Your task to perform on an android device: turn smart compose on in the gmail app Image 0: 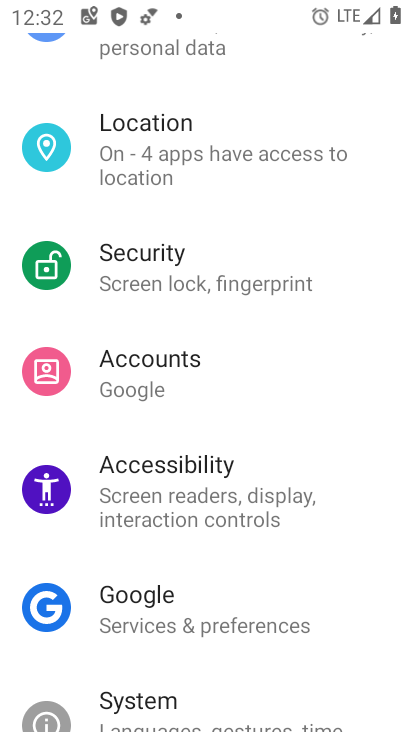
Step 0: press home button
Your task to perform on an android device: turn smart compose on in the gmail app Image 1: 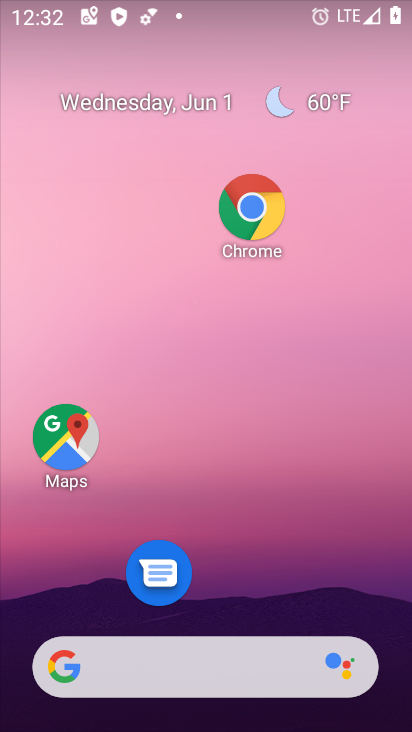
Step 1: drag from (248, 600) to (223, 163)
Your task to perform on an android device: turn smart compose on in the gmail app Image 2: 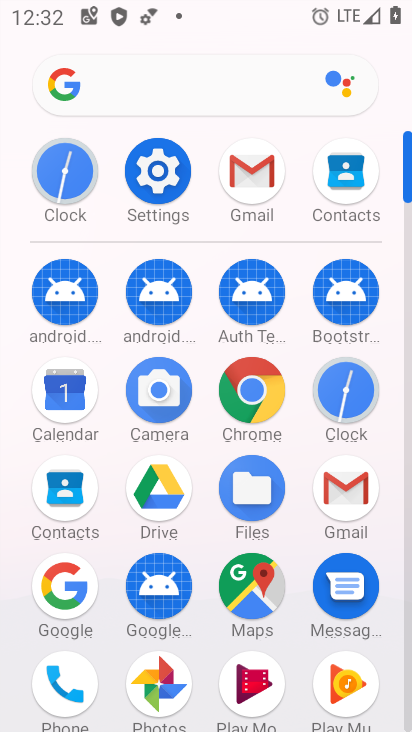
Step 2: click (226, 206)
Your task to perform on an android device: turn smart compose on in the gmail app Image 3: 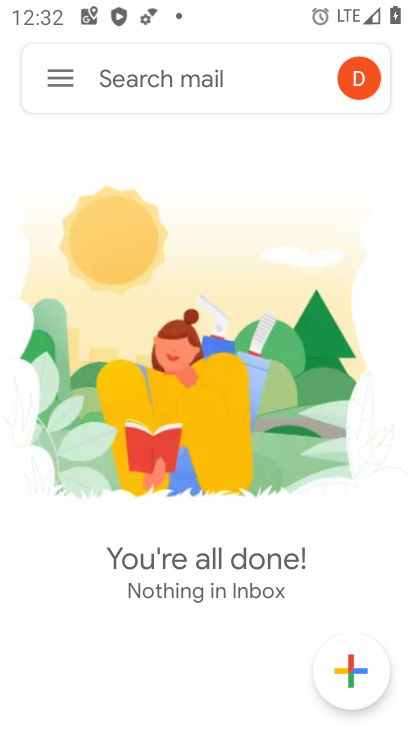
Step 3: click (47, 84)
Your task to perform on an android device: turn smart compose on in the gmail app Image 4: 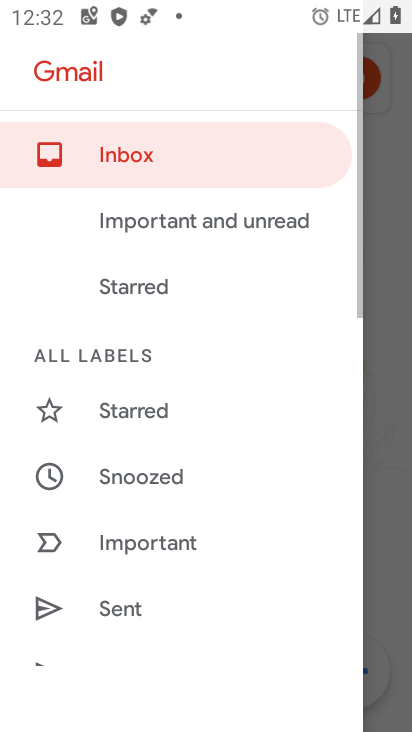
Step 4: drag from (190, 638) to (210, 261)
Your task to perform on an android device: turn smart compose on in the gmail app Image 5: 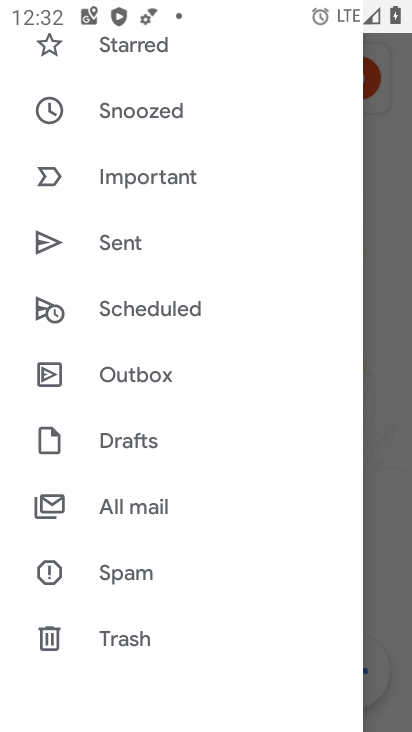
Step 5: drag from (154, 552) to (188, 314)
Your task to perform on an android device: turn smart compose on in the gmail app Image 6: 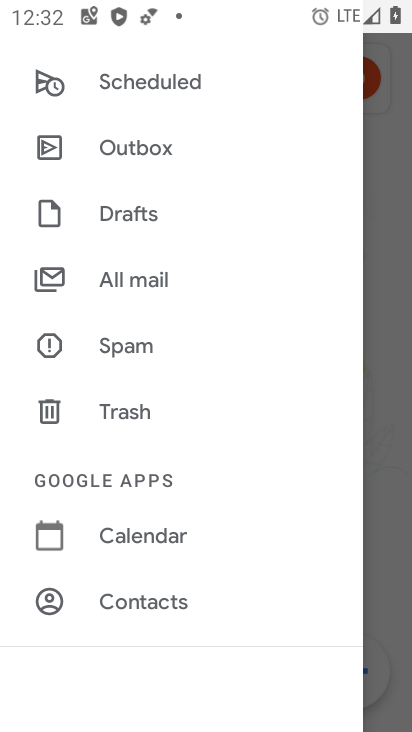
Step 6: drag from (187, 587) to (206, 271)
Your task to perform on an android device: turn smart compose on in the gmail app Image 7: 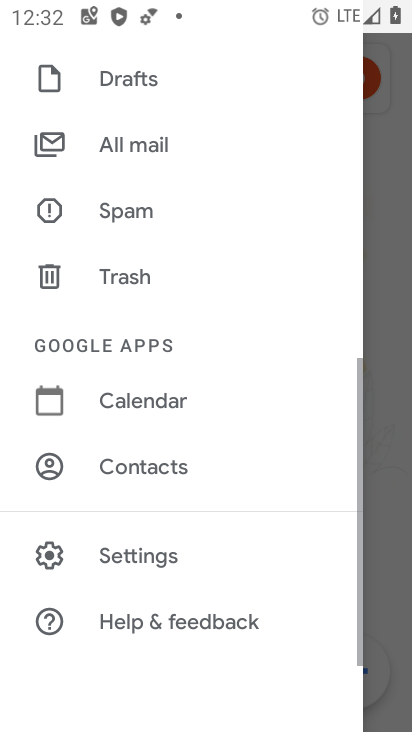
Step 7: click (145, 550)
Your task to perform on an android device: turn smart compose on in the gmail app Image 8: 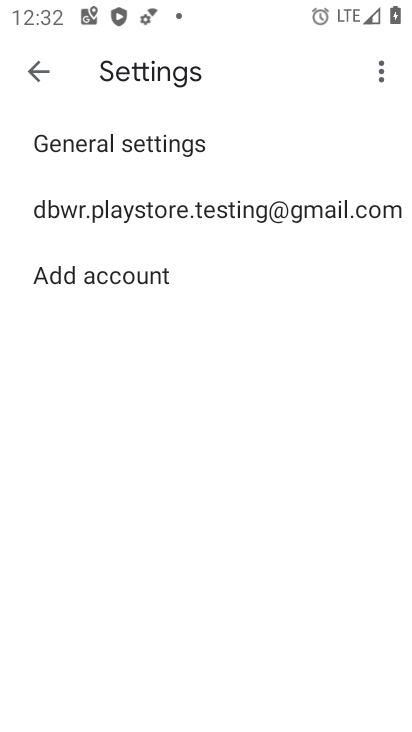
Step 8: click (175, 212)
Your task to perform on an android device: turn smart compose on in the gmail app Image 9: 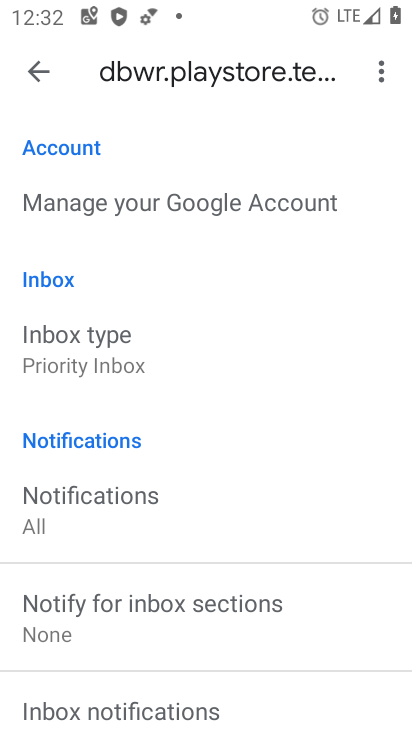
Step 9: task complete